Your task to perform on an android device: change the clock style Image 0: 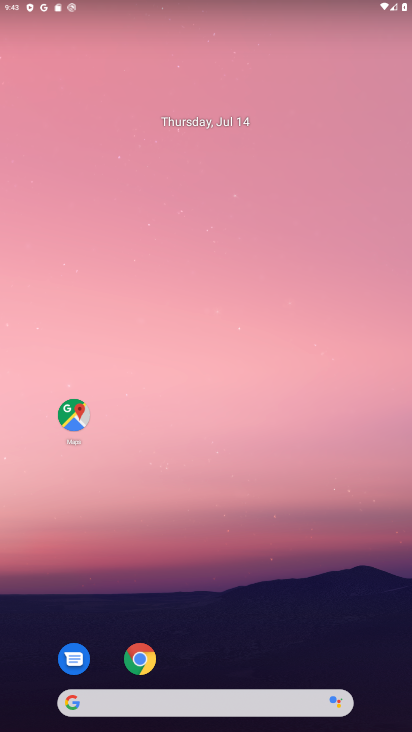
Step 0: drag from (325, 642) to (280, 102)
Your task to perform on an android device: change the clock style Image 1: 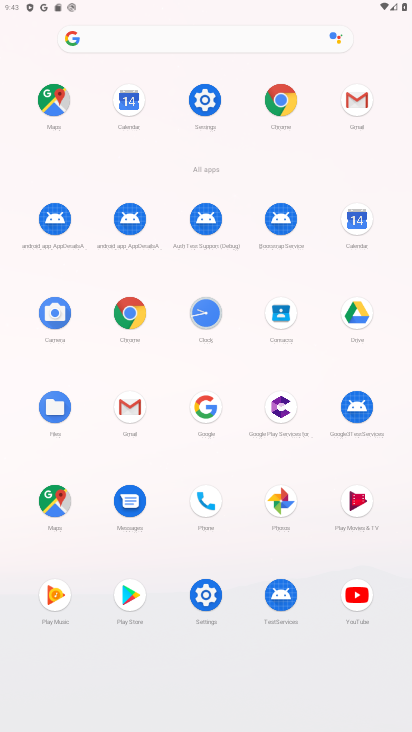
Step 1: click (205, 312)
Your task to perform on an android device: change the clock style Image 2: 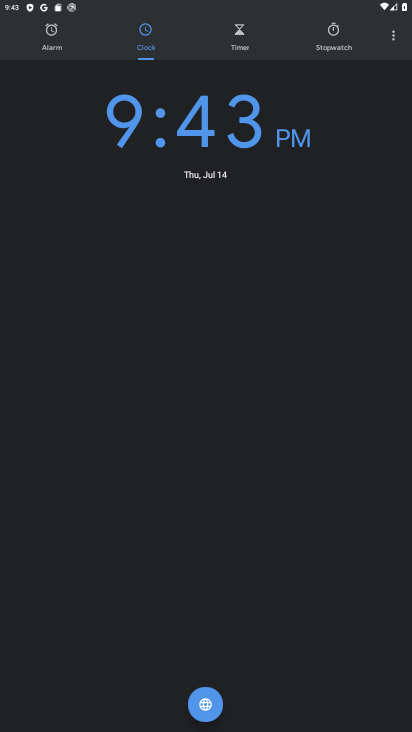
Step 2: click (391, 35)
Your task to perform on an android device: change the clock style Image 3: 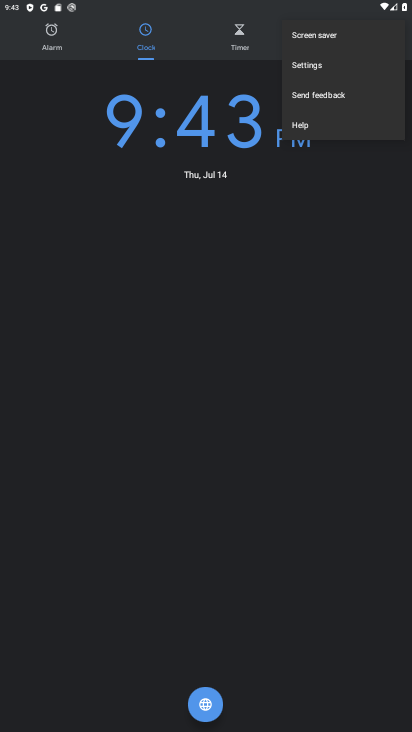
Step 3: click (300, 68)
Your task to perform on an android device: change the clock style Image 4: 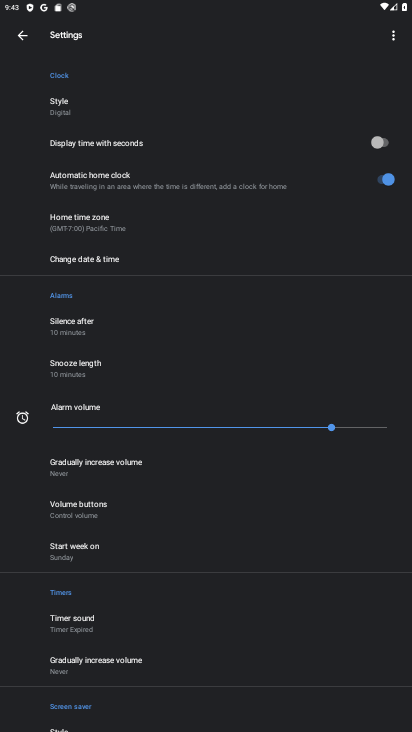
Step 4: click (70, 115)
Your task to perform on an android device: change the clock style Image 5: 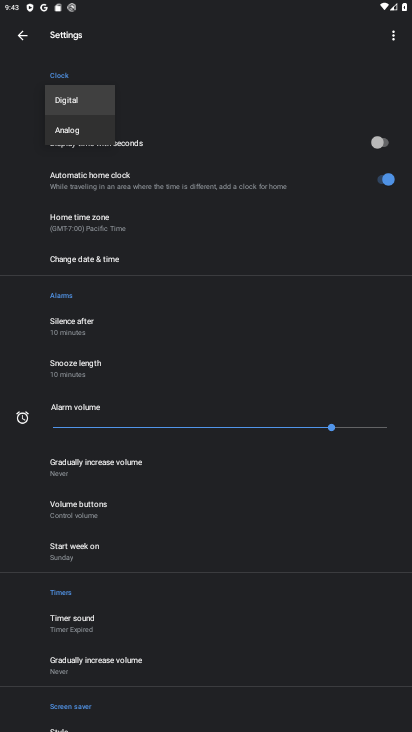
Step 5: click (75, 136)
Your task to perform on an android device: change the clock style Image 6: 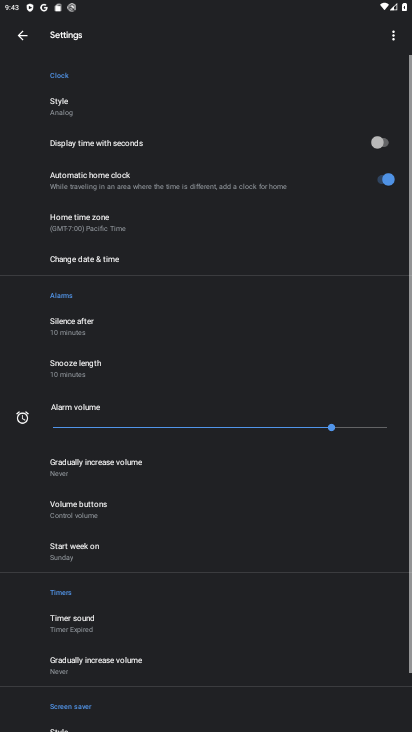
Step 6: task complete